Your task to perform on an android device: Open location settings Image 0: 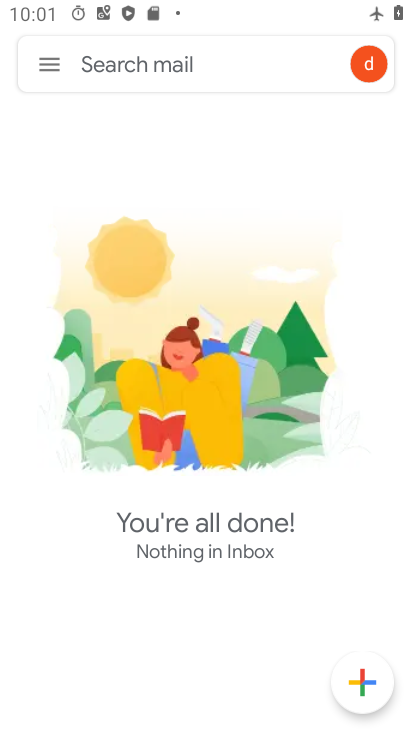
Step 0: press back button
Your task to perform on an android device: Open location settings Image 1: 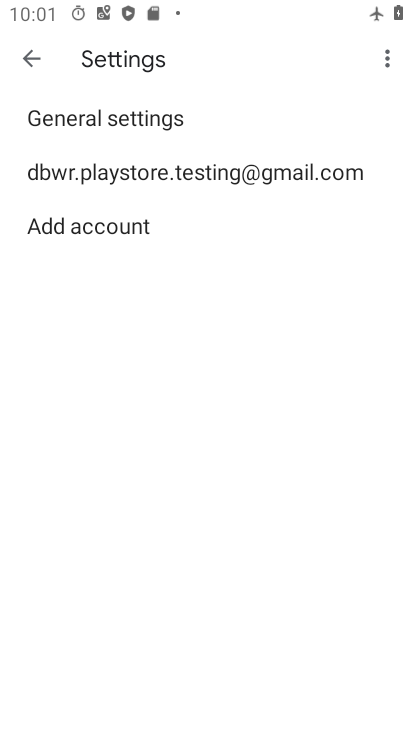
Step 1: press back button
Your task to perform on an android device: Open location settings Image 2: 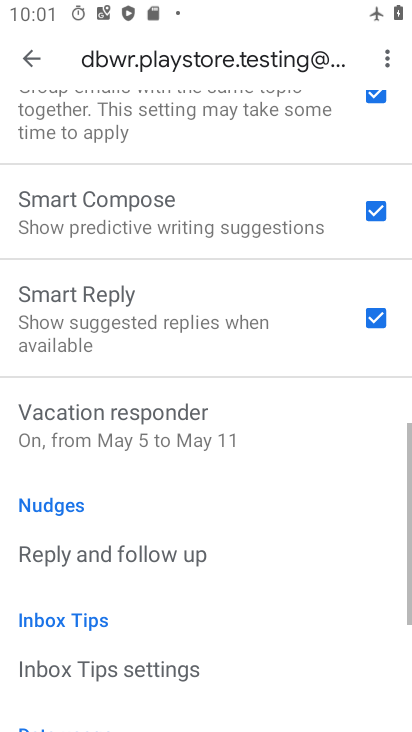
Step 2: press home button
Your task to perform on an android device: Open location settings Image 3: 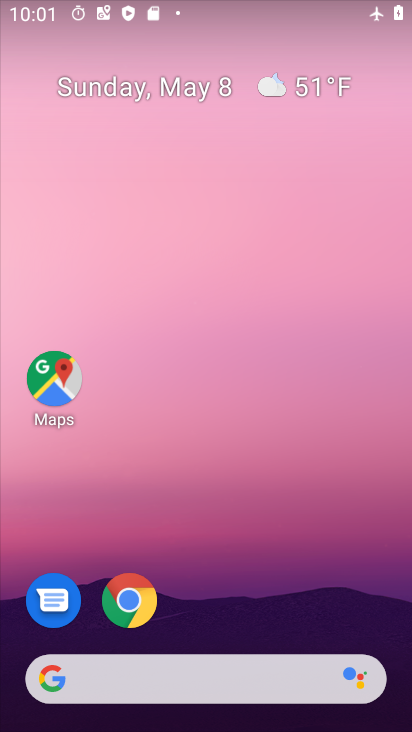
Step 3: drag from (243, 606) to (261, 4)
Your task to perform on an android device: Open location settings Image 4: 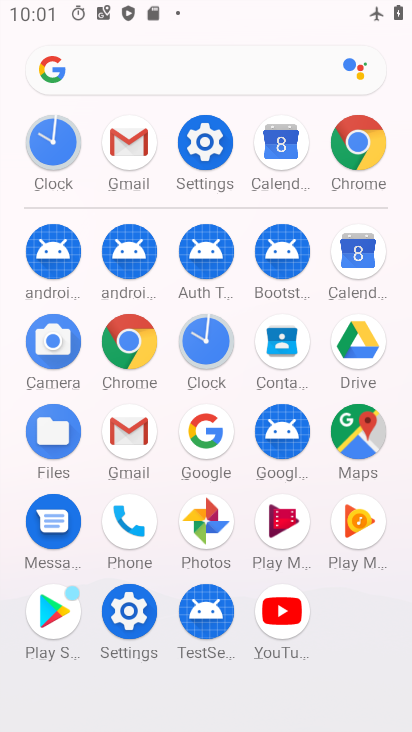
Step 4: click (202, 142)
Your task to perform on an android device: Open location settings Image 5: 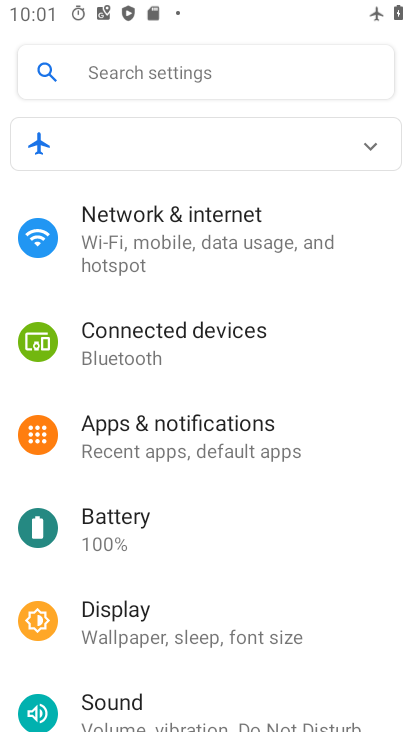
Step 5: drag from (283, 574) to (275, 166)
Your task to perform on an android device: Open location settings Image 6: 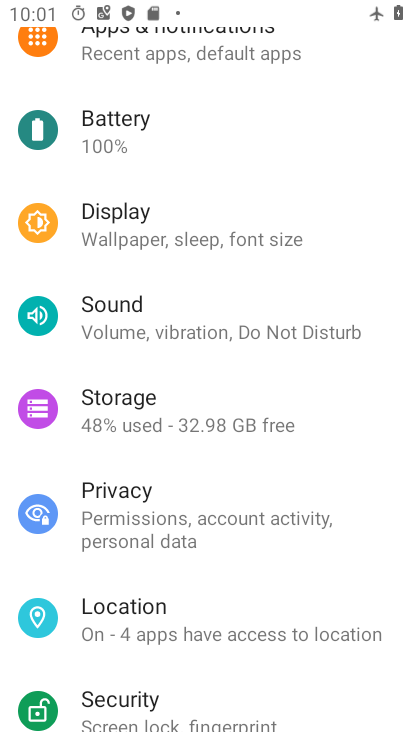
Step 6: click (165, 612)
Your task to perform on an android device: Open location settings Image 7: 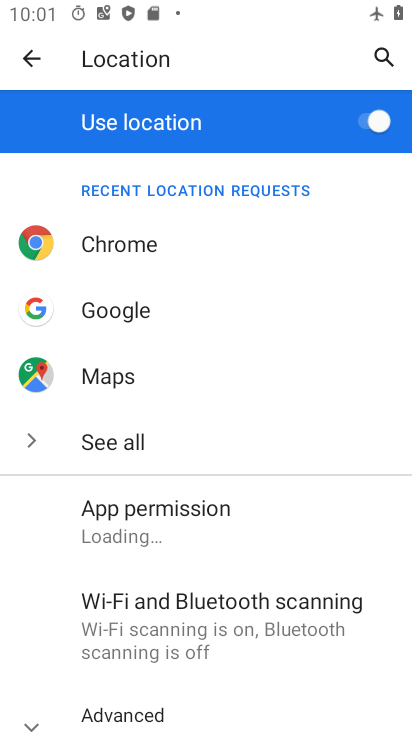
Step 7: drag from (268, 600) to (301, 173)
Your task to perform on an android device: Open location settings Image 8: 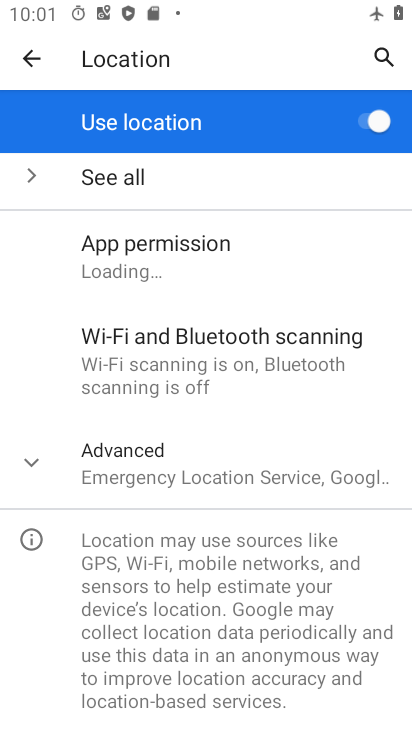
Step 8: click (43, 466)
Your task to perform on an android device: Open location settings Image 9: 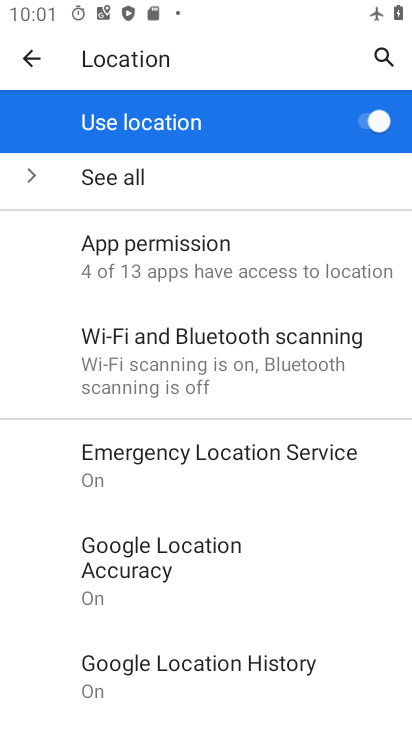
Step 9: task complete